Your task to perform on an android device: Toggle the flashlight Image 0: 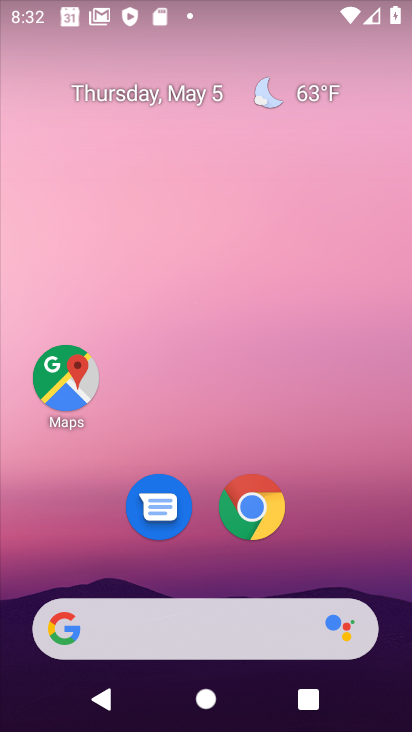
Step 0: drag from (349, 514) to (332, 82)
Your task to perform on an android device: Toggle the flashlight Image 1: 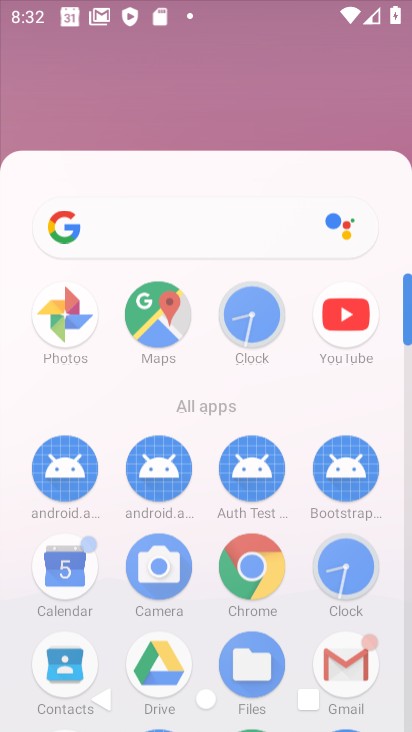
Step 1: click (333, 57)
Your task to perform on an android device: Toggle the flashlight Image 2: 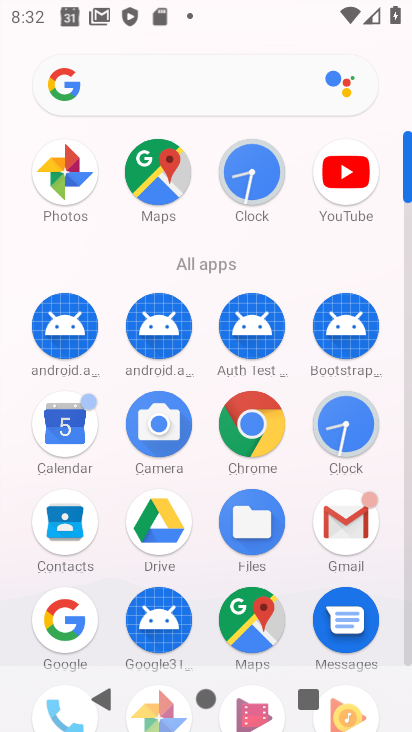
Step 2: drag from (326, 0) to (295, 538)
Your task to perform on an android device: Toggle the flashlight Image 3: 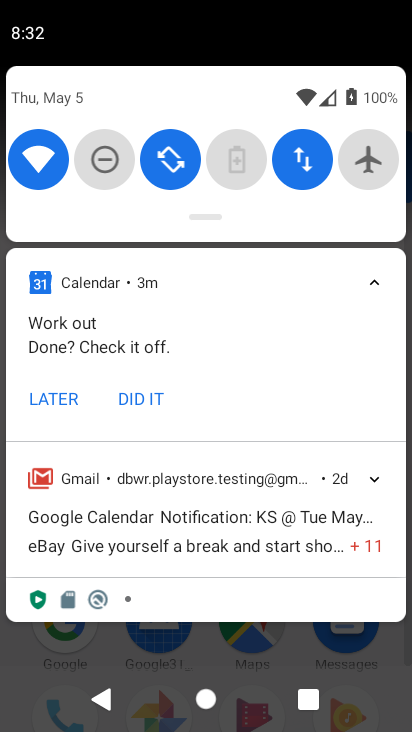
Step 3: drag from (206, 216) to (205, 533)
Your task to perform on an android device: Toggle the flashlight Image 4: 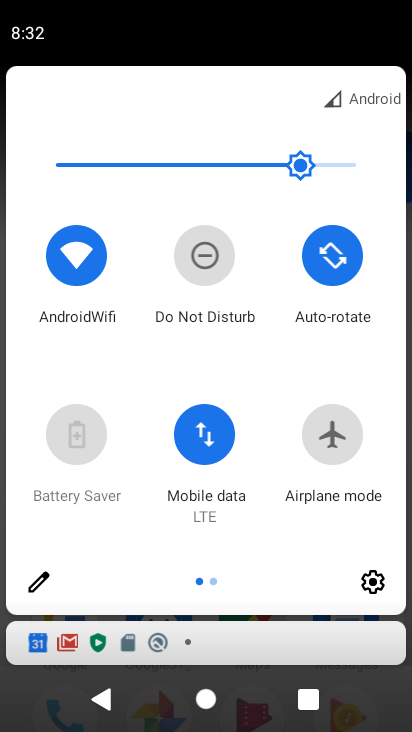
Step 4: click (47, 576)
Your task to perform on an android device: Toggle the flashlight Image 5: 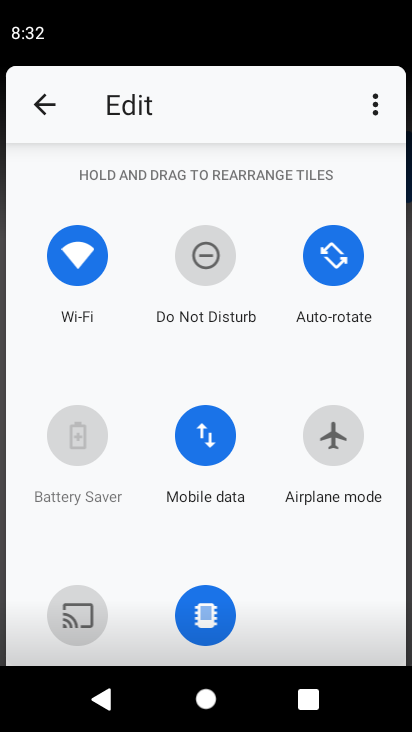
Step 5: task complete